Your task to perform on an android device: Open my contact list Image 0: 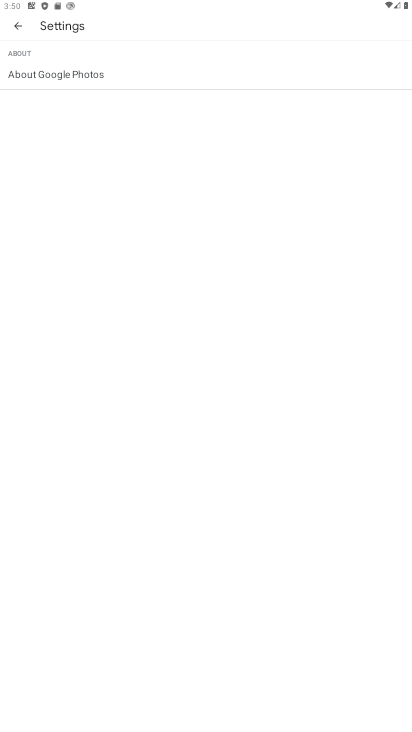
Step 0: press home button
Your task to perform on an android device: Open my contact list Image 1: 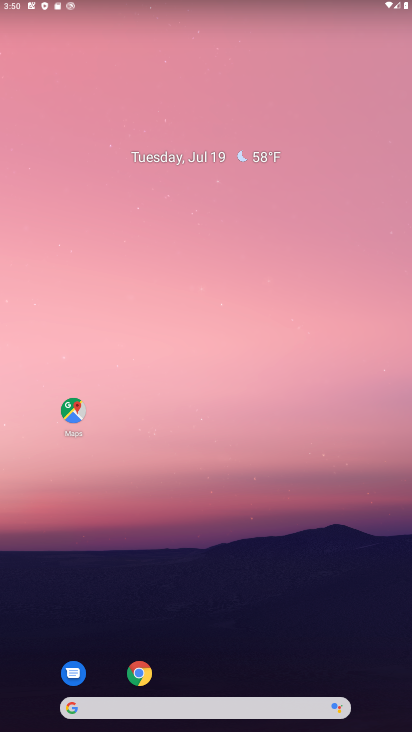
Step 1: drag from (228, 595) to (310, 15)
Your task to perform on an android device: Open my contact list Image 2: 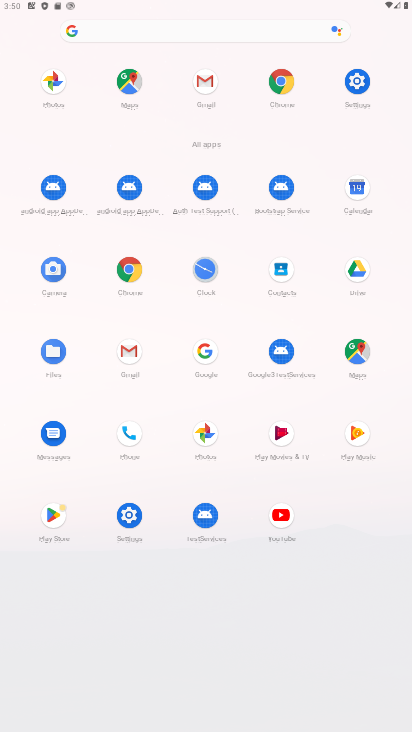
Step 2: click (278, 270)
Your task to perform on an android device: Open my contact list Image 3: 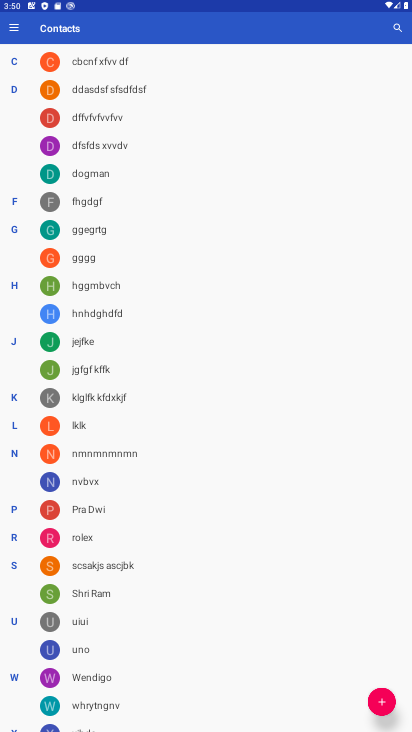
Step 3: click (383, 700)
Your task to perform on an android device: Open my contact list Image 4: 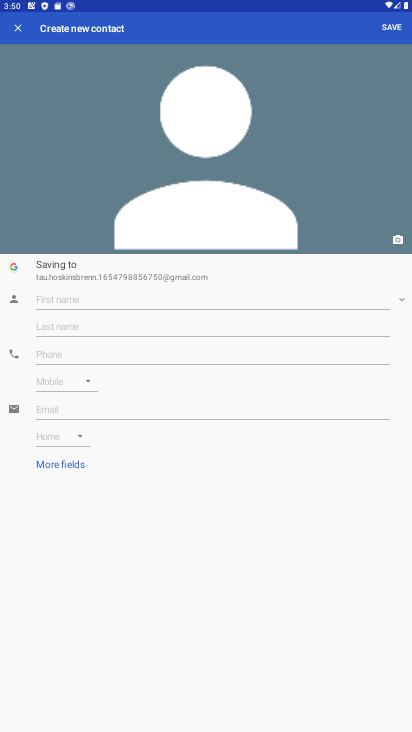
Step 4: click (61, 297)
Your task to perform on an android device: Open my contact list Image 5: 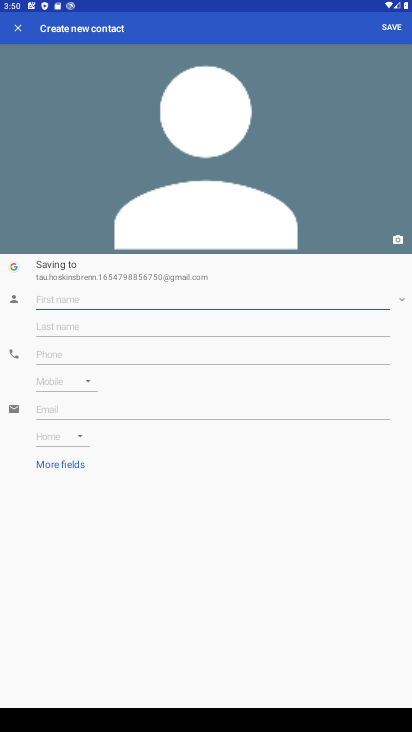
Step 5: type "sdds"
Your task to perform on an android device: Open my contact list Image 6: 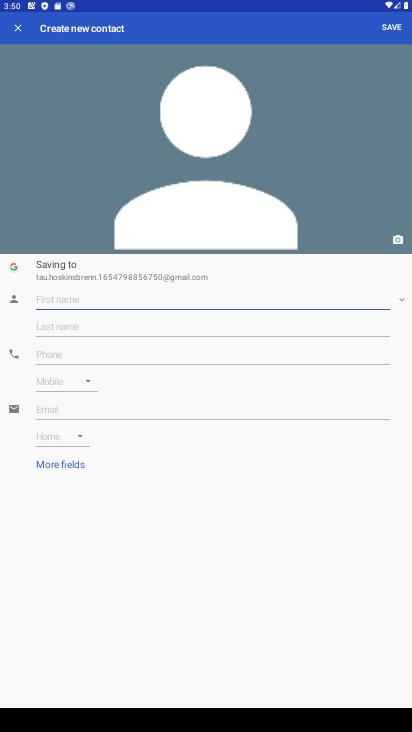
Step 6: click (70, 353)
Your task to perform on an android device: Open my contact list Image 7: 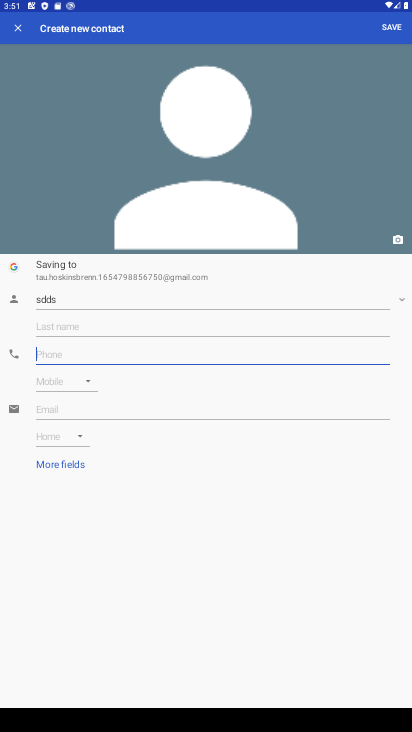
Step 7: type "6665554444"
Your task to perform on an android device: Open my contact list Image 8: 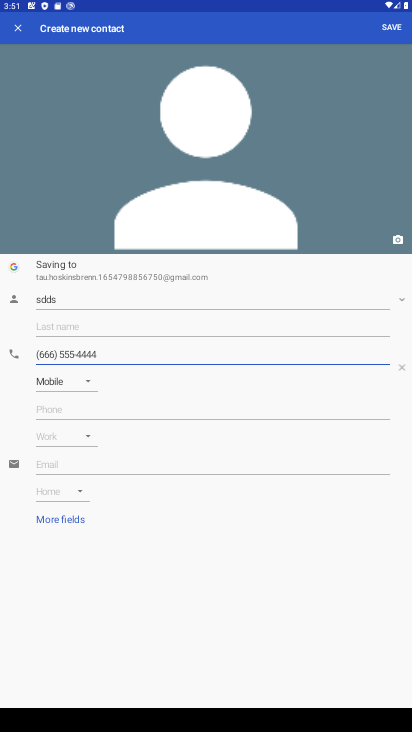
Step 8: click (386, 29)
Your task to perform on an android device: Open my contact list Image 9: 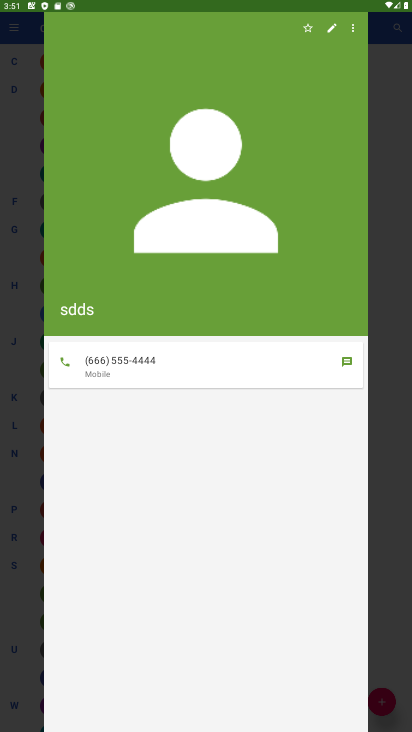
Step 9: task complete